Your task to perform on an android device: set an alarm Image 0: 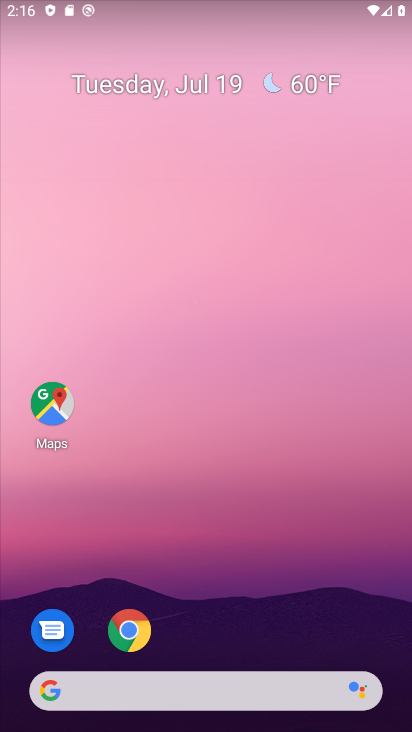
Step 0: drag from (235, 563) to (139, 24)
Your task to perform on an android device: set an alarm Image 1: 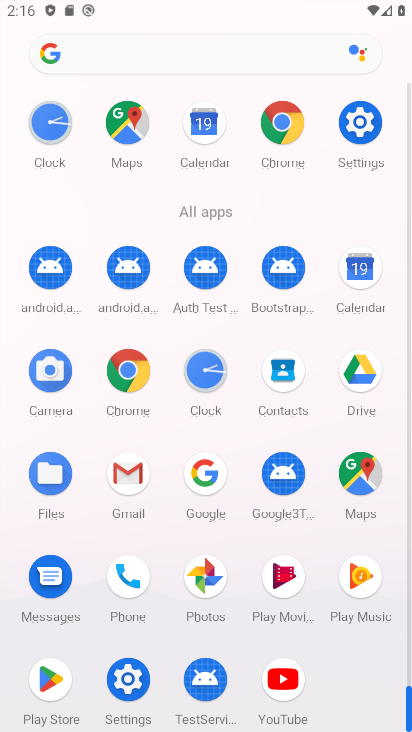
Step 1: click (354, 270)
Your task to perform on an android device: set an alarm Image 2: 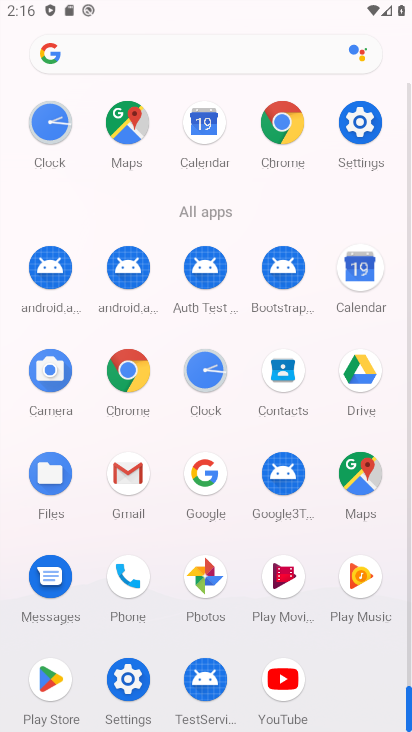
Step 2: click (354, 270)
Your task to perform on an android device: set an alarm Image 3: 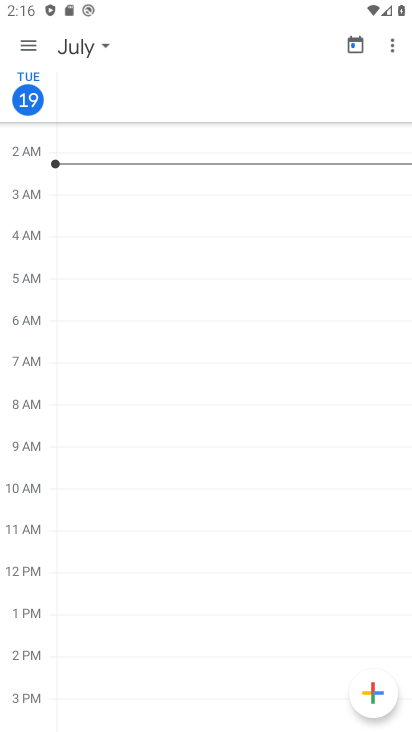
Step 3: press back button
Your task to perform on an android device: set an alarm Image 4: 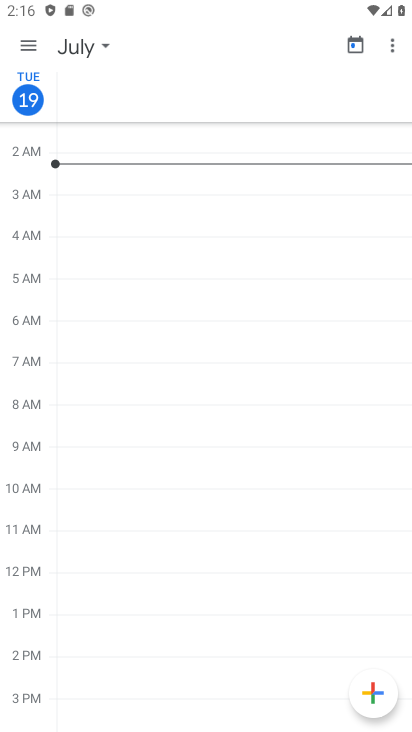
Step 4: press back button
Your task to perform on an android device: set an alarm Image 5: 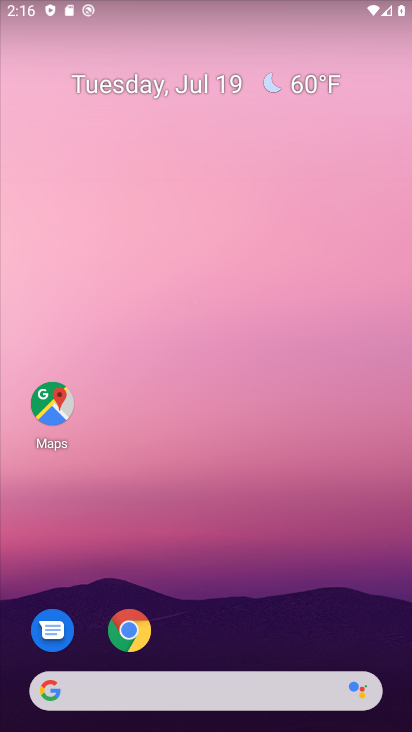
Step 5: drag from (188, 395) to (192, 28)
Your task to perform on an android device: set an alarm Image 6: 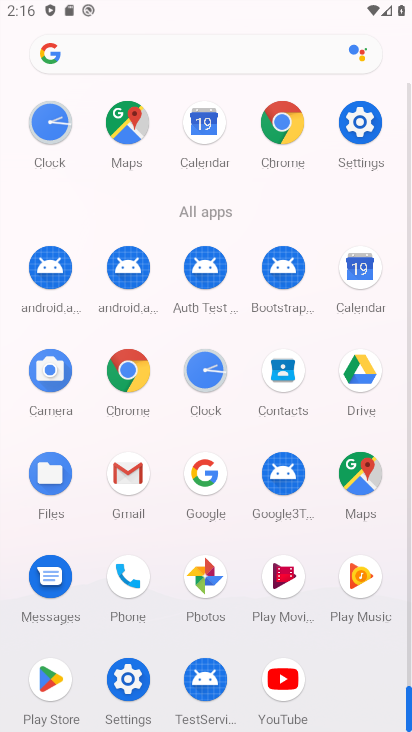
Step 6: click (221, 366)
Your task to perform on an android device: set an alarm Image 7: 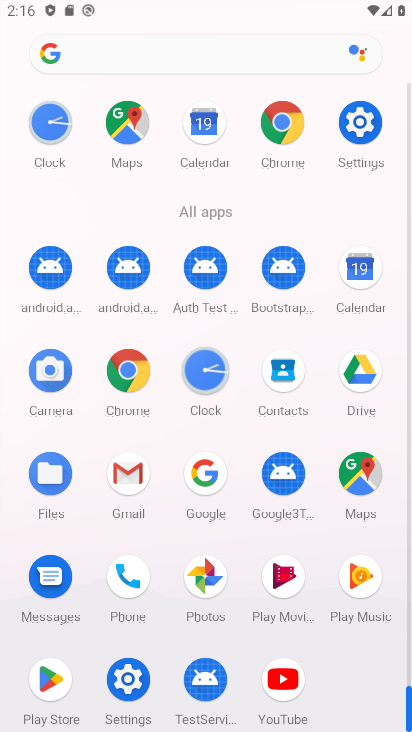
Step 7: click (215, 370)
Your task to perform on an android device: set an alarm Image 8: 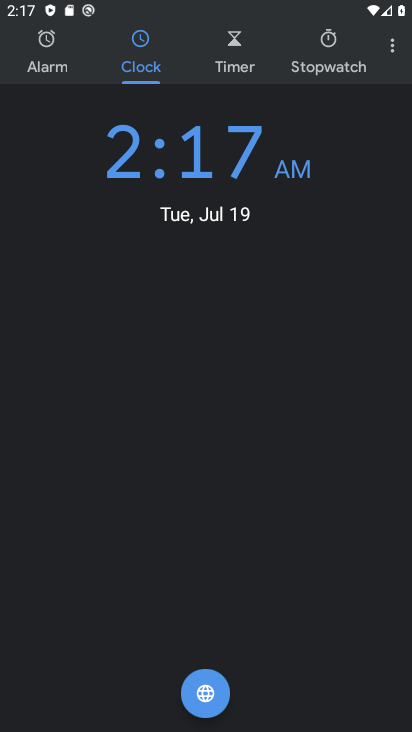
Step 8: click (38, 69)
Your task to perform on an android device: set an alarm Image 9: 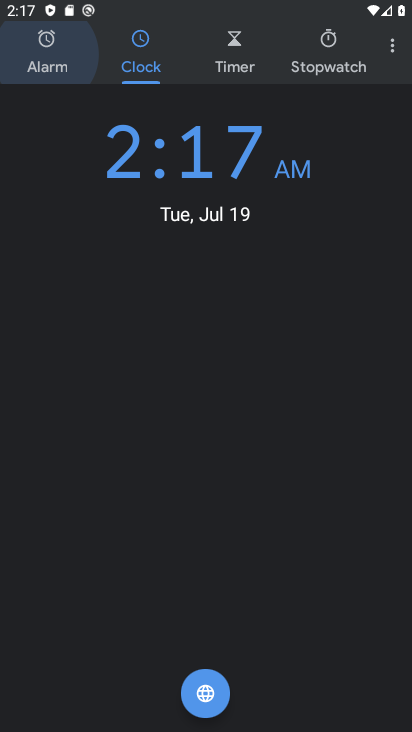
Step 9: click (39, 68)
Your task to perform on an android device: set an alarm Image 10: 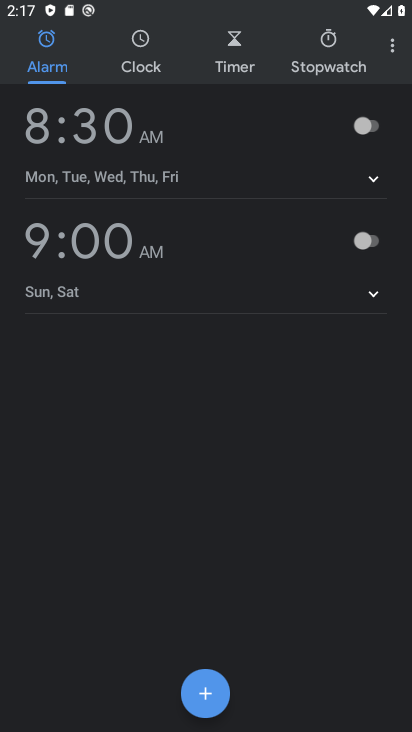
Step 10: click (361, 135)
Your task to perform on an android device: set an alarm Image 11: 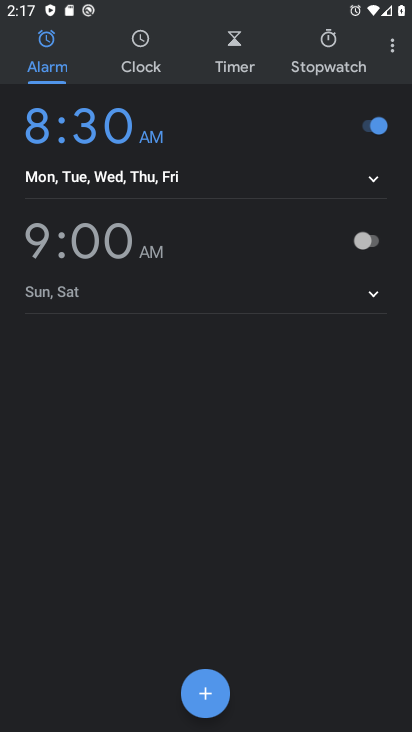
Step 11: task complete